Your task to perform on an android device: Go to Wikipedia Image 0: 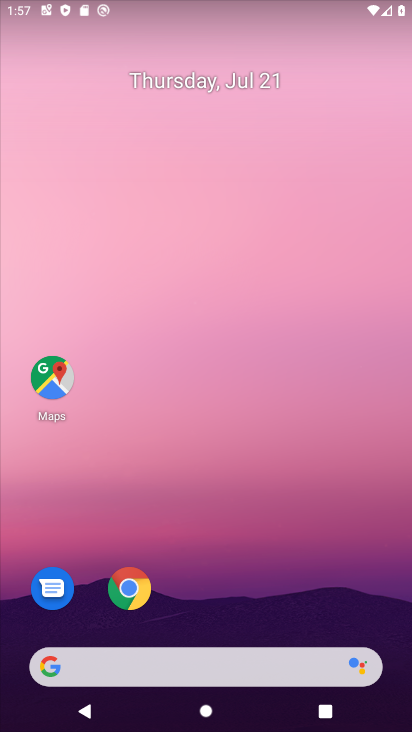
Step 0: click (127, 591)
Your task to perform on an android device: Go to Wikipedia Image 1: 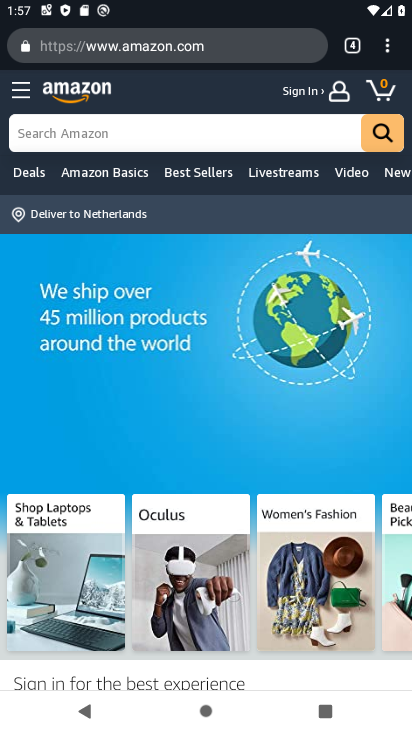
Step 1: click (347, 48)
Your task to perform on an android device: Go to Wikipedia Image 2: 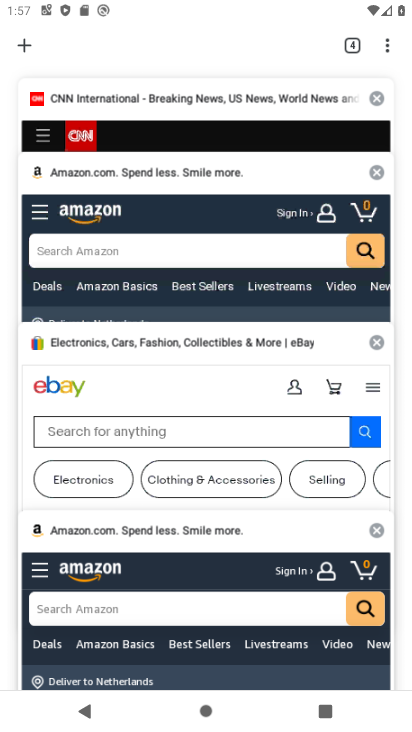
Step 2: click (26, 41)
Your task to perform on an android device: Go to Wikipedia Image 3: 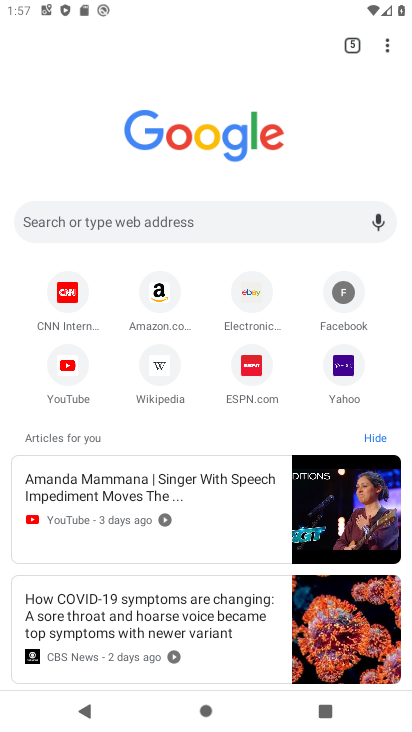
Step 3: click (155, 383)
Your task to perform on an android device: Go to Wikipedia Image 4: 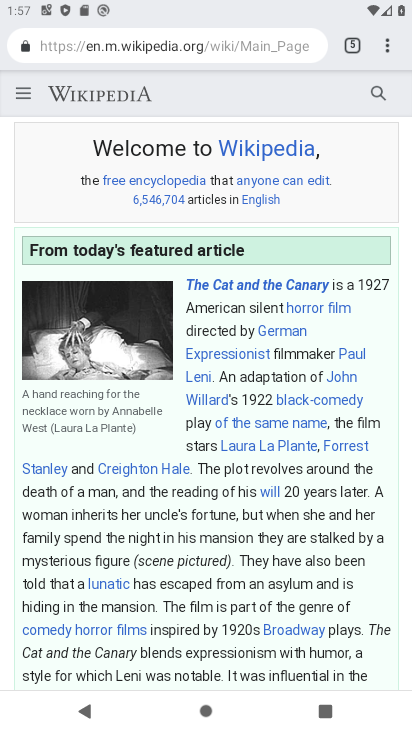
Step 4: task complete